Your task to perform on an android device: turn off data saver in the chrome app Image 0: 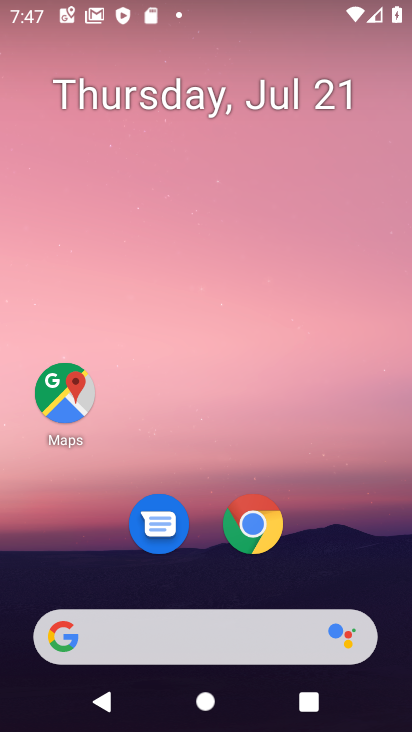
Step 0: press home button
Your task to perform on an android device: turn off data saver in the chrome app Image 1: 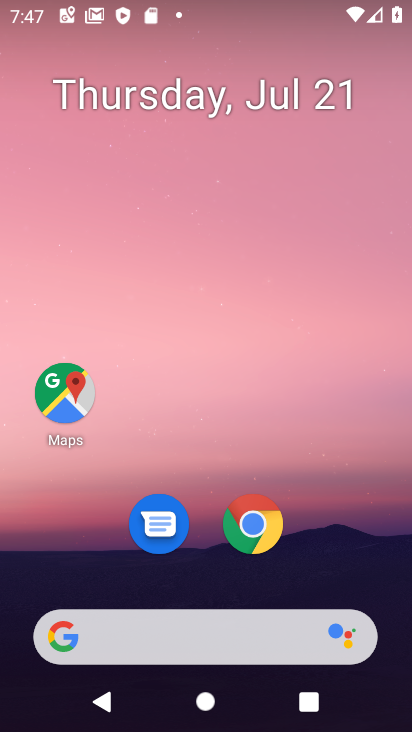
Step 1: drag from (198, 604) to (331, 88)
Your task to perform on an android device: turn off data saver in the chrome app Image 2: 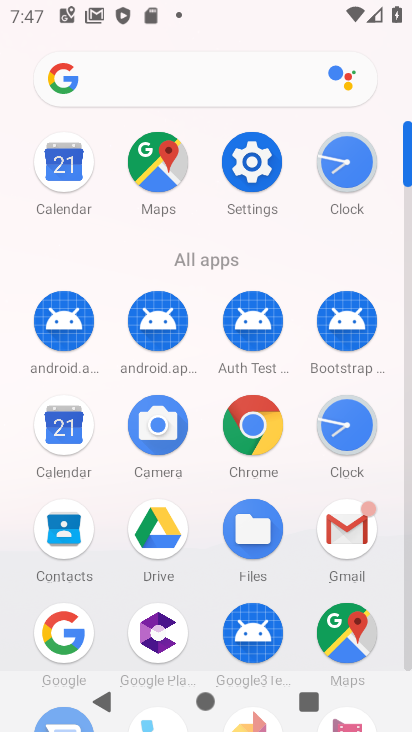
Step 2: click (257, 424)
Your task to perform on an android device: turn off data saver in the chrome app Image 3: 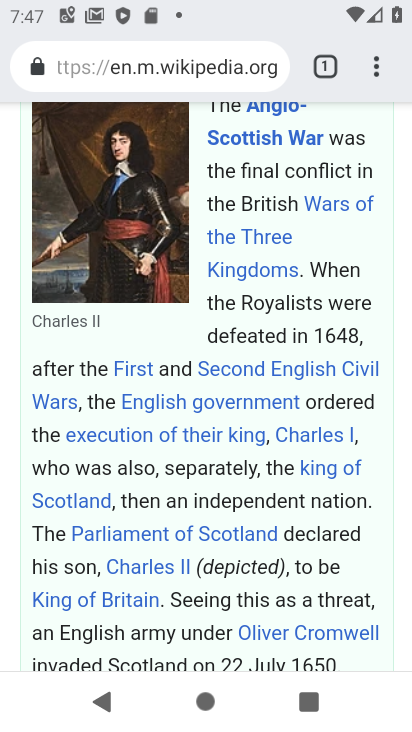
Step 3: drag from (374, 60) to (215, 524)
Your task to perform on an android device: turn off data saver in the chrome app Image 4: 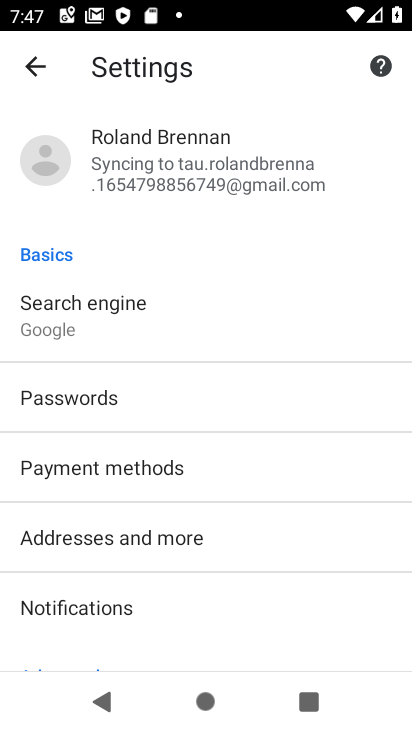
Step 4: drag from (208, 575) to (339, 166)
Your task to perform on an android device: turn off data saver in the chrome app Image 5: 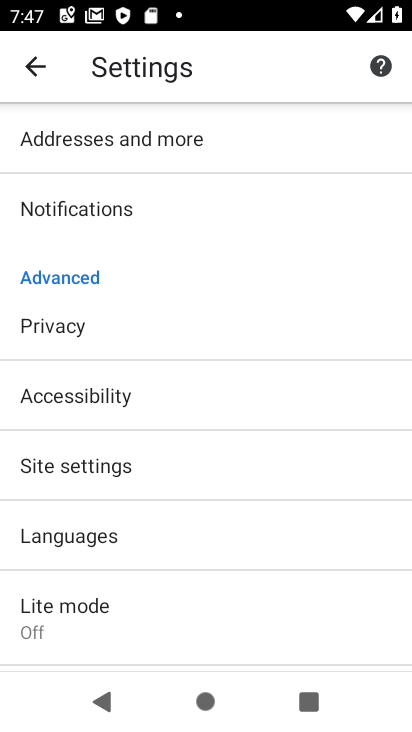
Step 5: click (105, 617)
Your task to perform on an android device: turn off data saver in the chrome app Image 6: 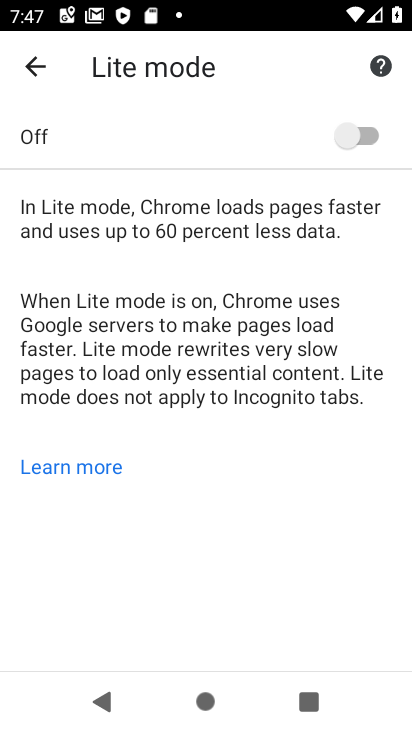
Step 6: click (368, 134)
Your task to perform on an android device: turn off data saver in the chrome app Image 7: 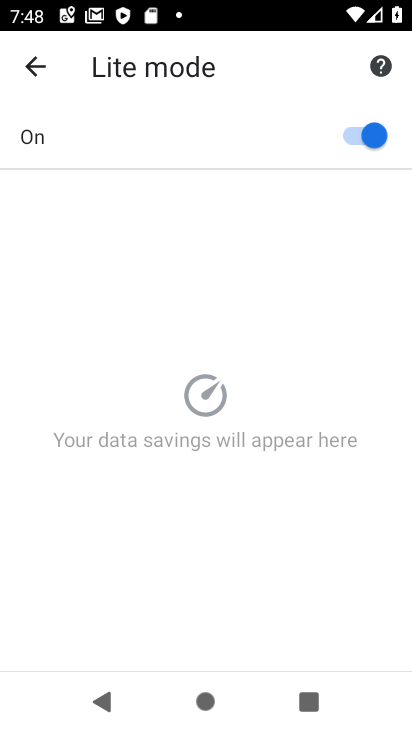
Step 7: click (352, 131)
Your task to perform on an android device: turn off data saver in the chrome app Image 8: 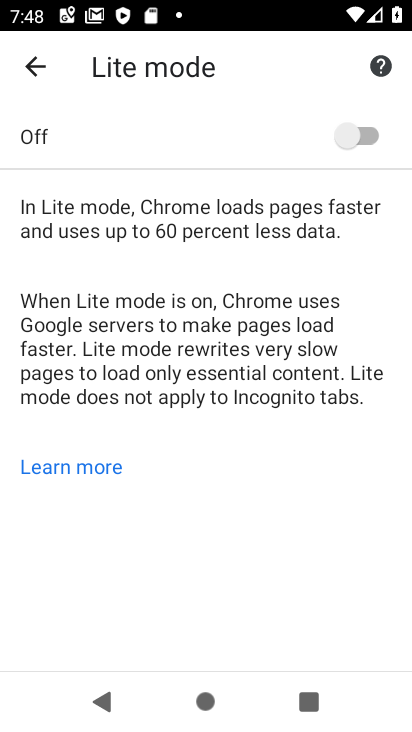
Step 8: task complete